Your task to perform on an android device: add a label to a message in the gmail app Image 0: 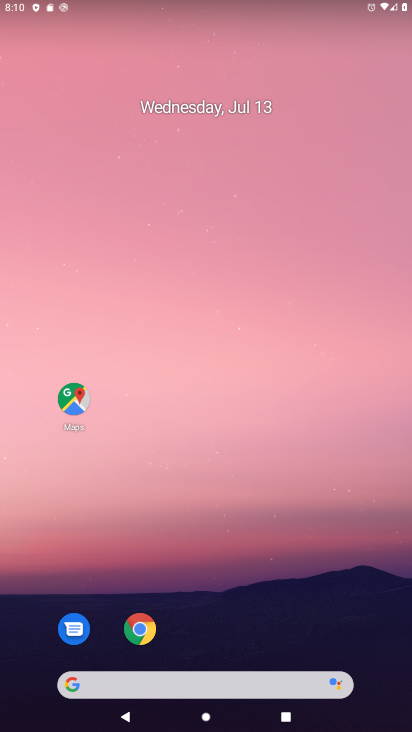
Step 0: drag from (225, 523) to (0, 70)
Your task to perform on an android device: add a label to a message in the gmail app Image 1: 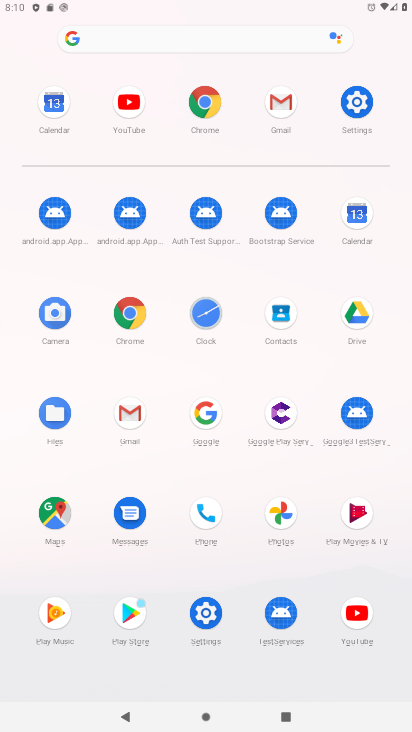
Step 1: click (276, 114)
Your task to perform on an android device: add a label to a message in the gmail app Image 2: 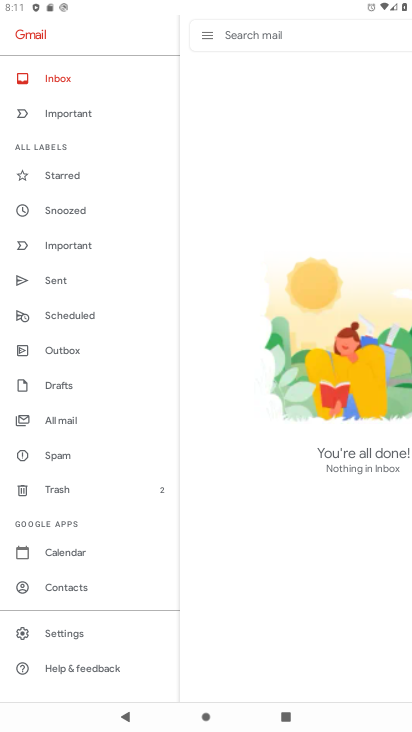
Step 2: click (51, 80)
Your task to perform on an android device: add a label to a message in the gmail app Image 3: 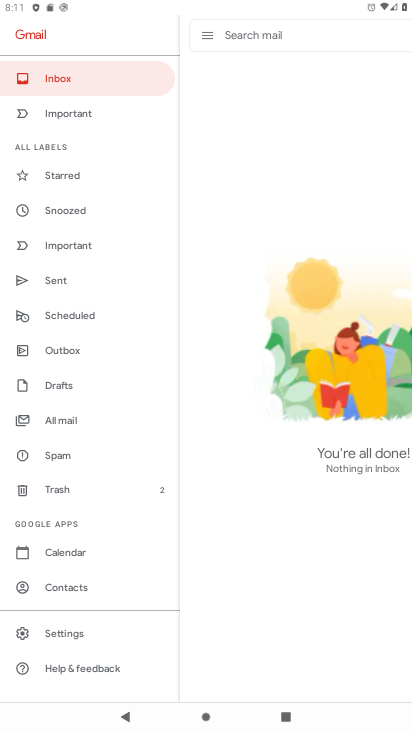
Step 3: task complete